Your task to perform on an android device: Go to Amazon Image 0: 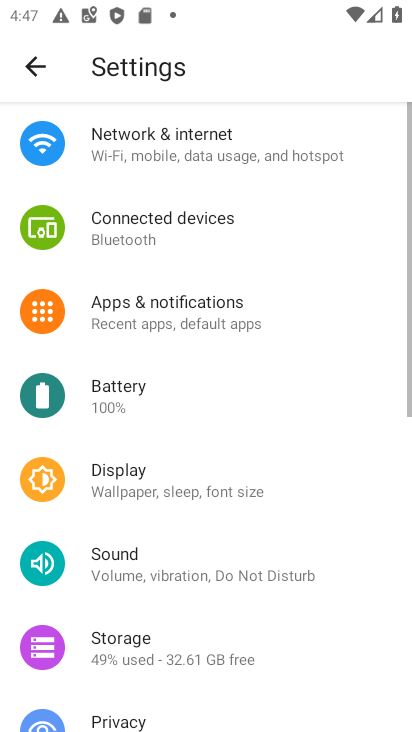
Step 0: press back button
Your task to perform on an android device: Go to Amazon Image 1: 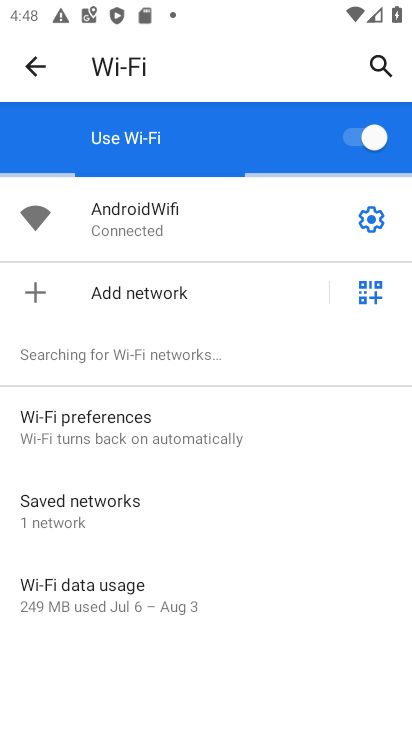
Step 1: press home button
Your task to perform on an android device: Go to Amazon Image 2: 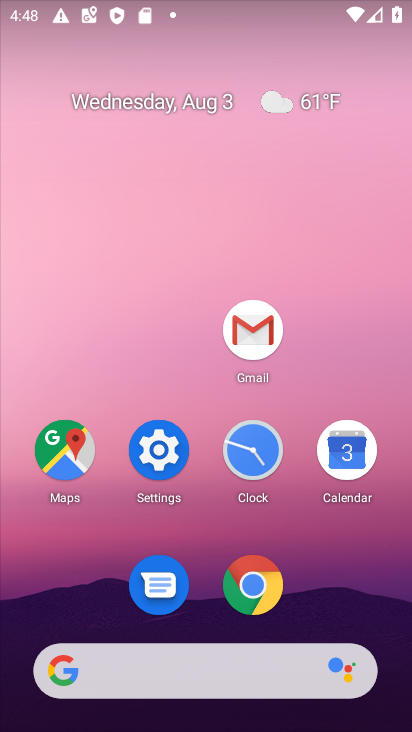
Step 2: click (252, 599)
Your task to perform on an android device: Go to Amazon Image 3: 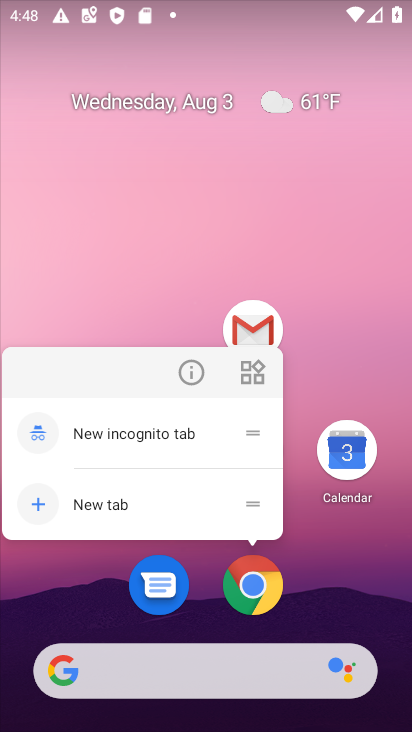
Step 3: click (247, 588)
Your task to perform on an android device: Go to Amazon Image 4: 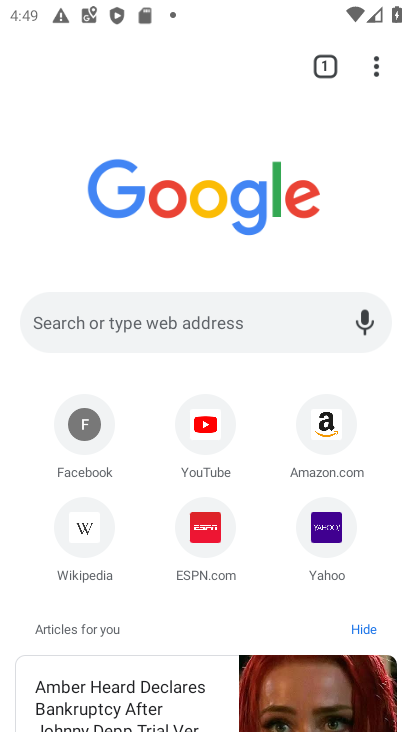
Step 4: click (167, 314)
Your task to perform on an android device: Go to Amazon Image 5: 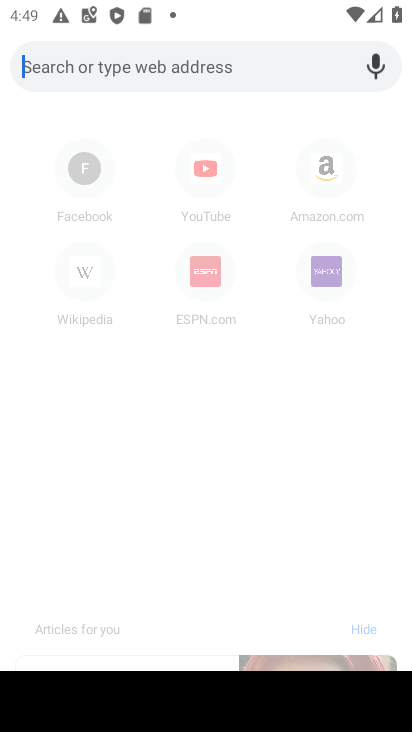
Step 5: type "Amazon"
Your task to perform on an android device: Go to Amazon Image 6: 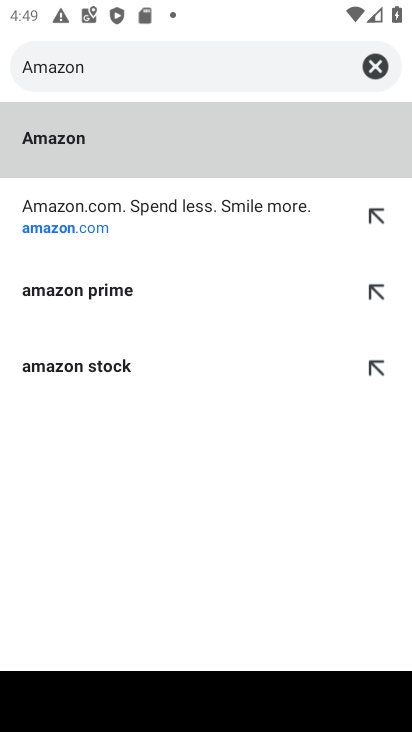
Step 6: click (187, 161)
Your task to perform on an android device: Go to Amazon Image 7: 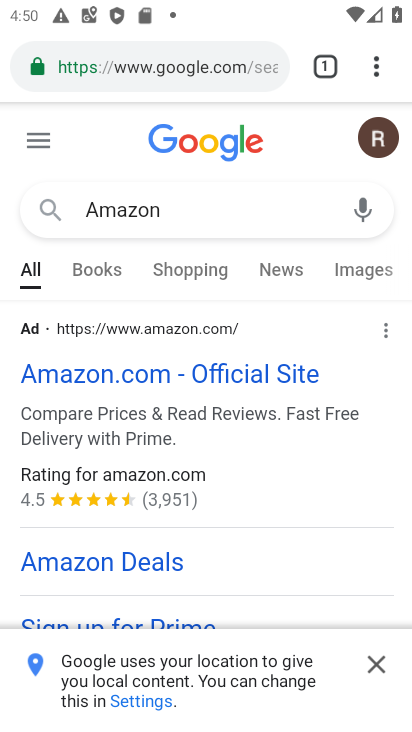
Step 7: task complete